Your task to perform on an android device: Open maps Image 0: 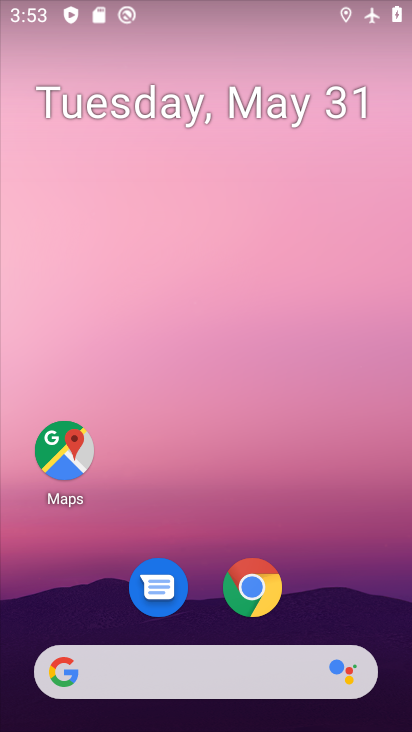
Step 0: click (62, 466)
Your task to perform on an android device: Open maps Image 1: 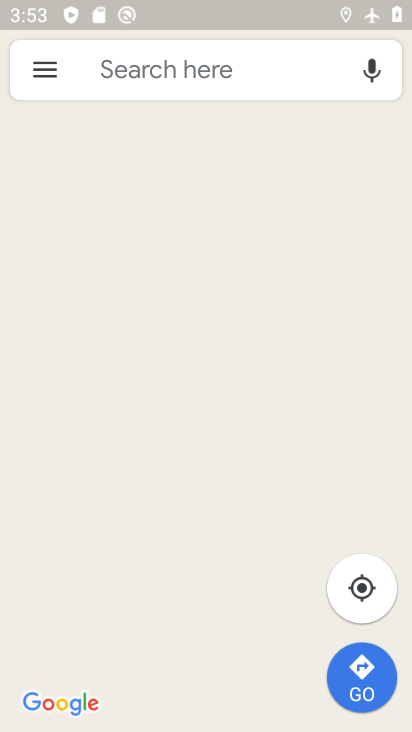
Step 1: task complete